Your task to perform on an android device: open wifi settings Image 0: 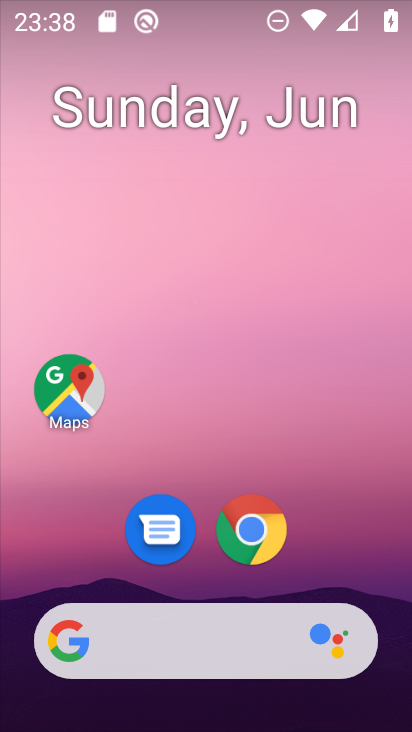
Step 0: drag from (392, 461) to (350, 22)
Your task to perform on an android device: open wifi settings Image 1: 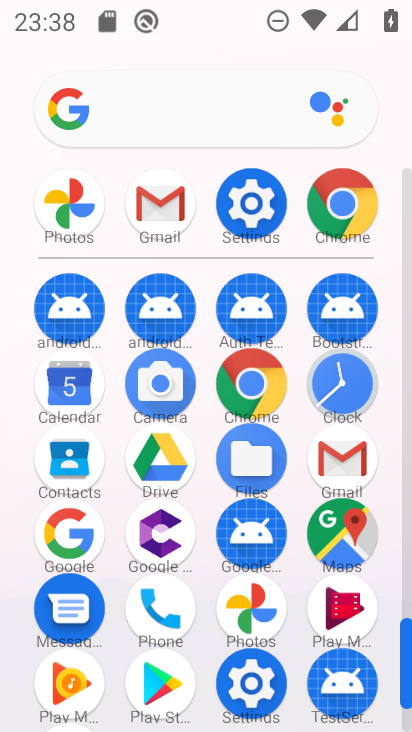
Step 1: click (250, 683)
Your task to perform on an android device: open wifi settings Image 2: 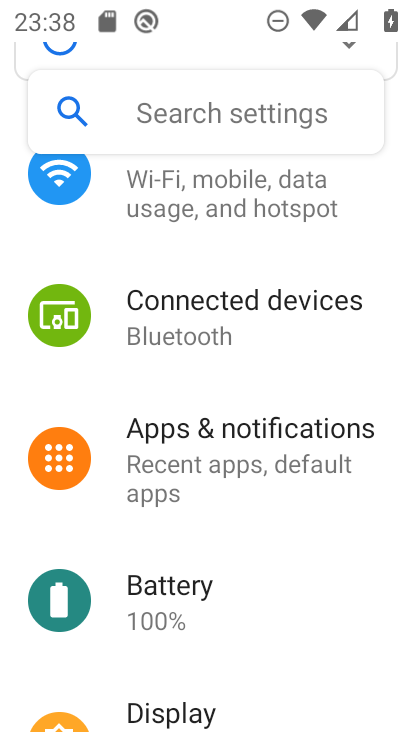
Step 2: drag from (343, 225) to (322, 482)
Your task to perform on an android device: open wifi settings Image 3: 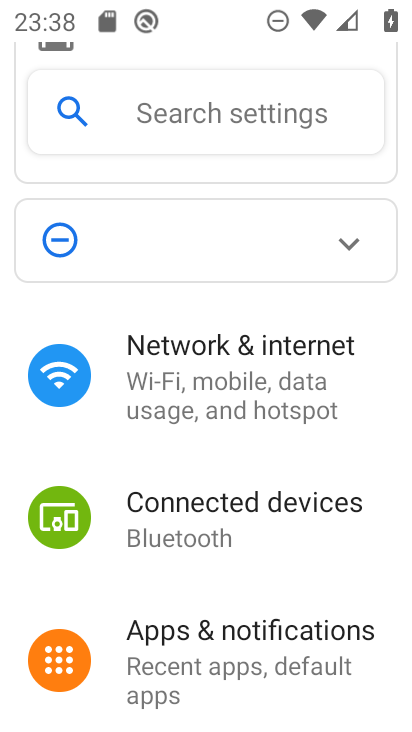
Step 3: click (184, 359)
Your task to perform on an android device: open wifi settings Image 4: 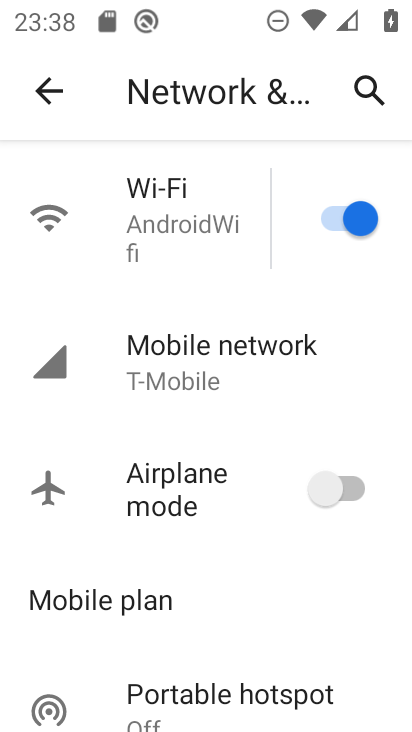
Step 4: click (155, 188)
Your task to perform on an android device: open wifi settings Image 5: 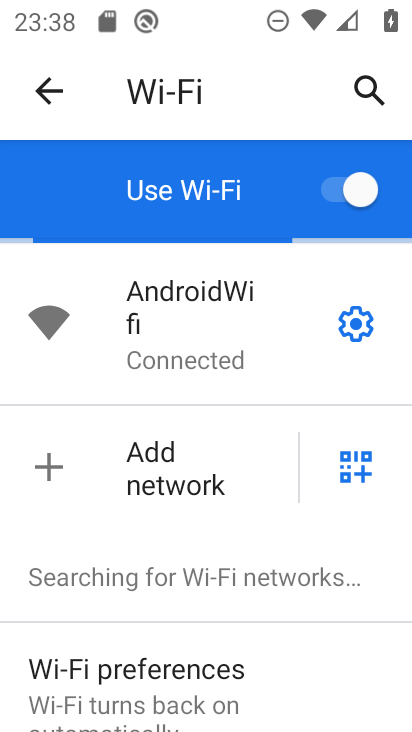
Step 5: drag from (228, 608) to (206, 241)
Your task to perform on an android device: open wifi settings Image 6: 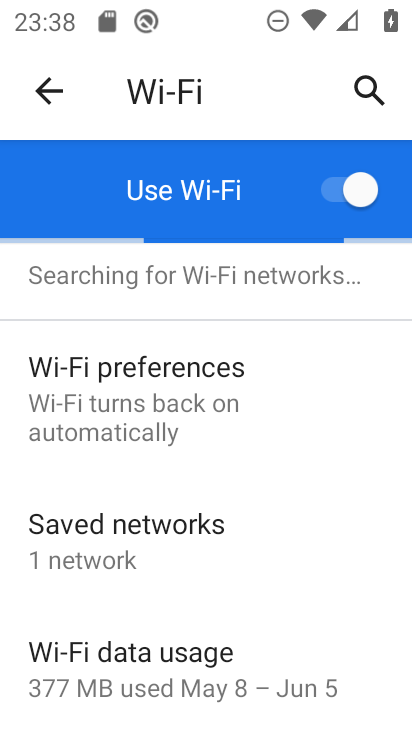
Step 6: drag from (223, 366) to (230, 581)
Your task to perform on an android device: open wifi settings Image 7: 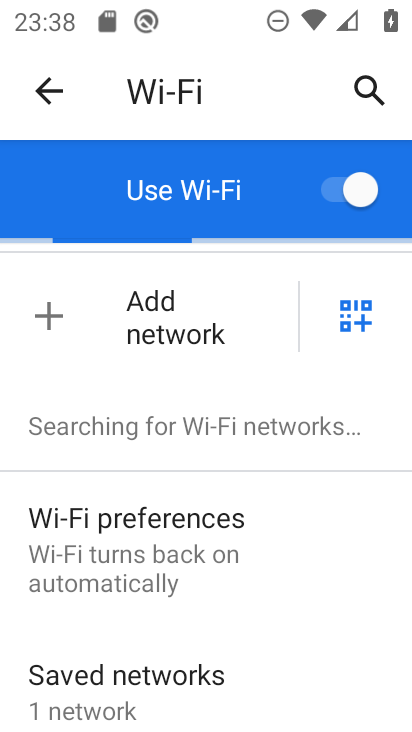
Step 7: drag from (264, 318) to (248, 611)
Your task to perform on an android device: open wifi settings Image 8: 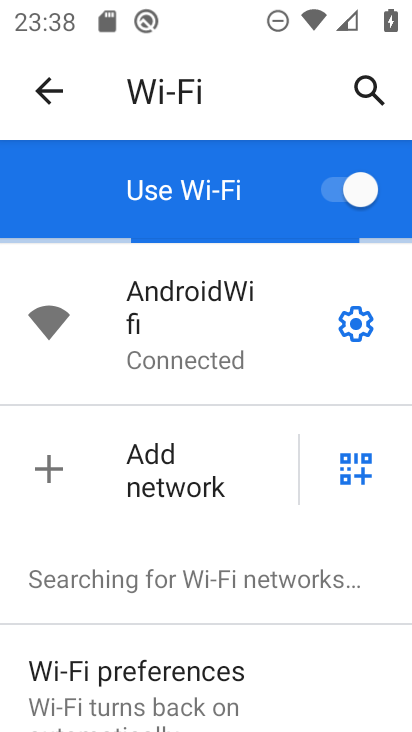
Step 8: click (353, 322)
Your task to perform on an android device: open wifi settings Image 9: 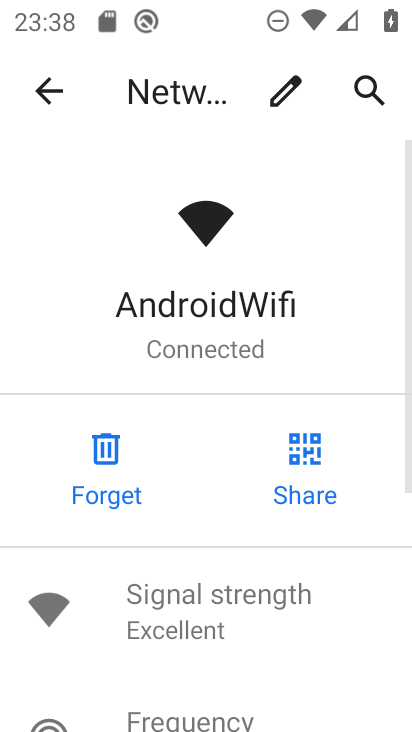
Step 9: drag from (271, 615) to (208, 219)
Your task to perform on an android device: open wifi settings Image 10: 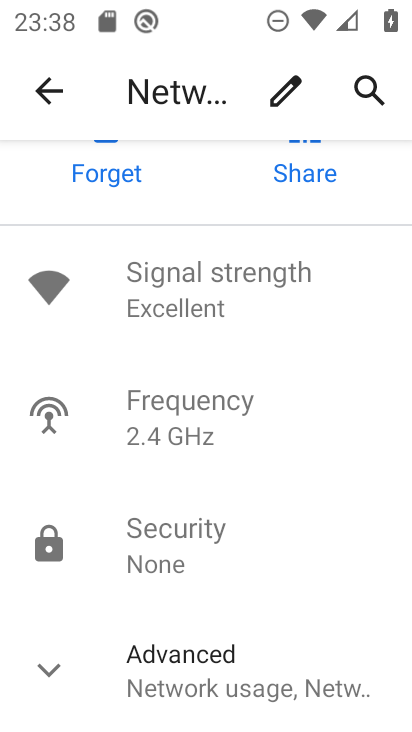
Step 10: click (46, 672)
Your task to perform on an android device: open wifi settings Image 11: 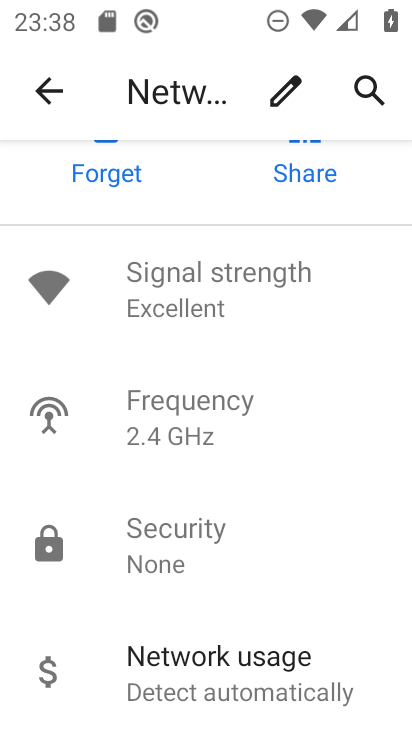
Step 11: task complete